Your task to perform on an android device: toggle notifications settings in the gmail app Image 0: 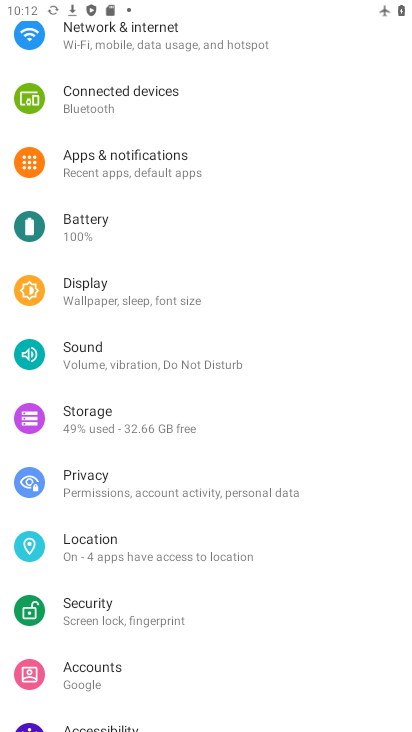
Step 0: press home button
Your task to perform on an android device: toggle notifications settings in the gmail app Image 1: 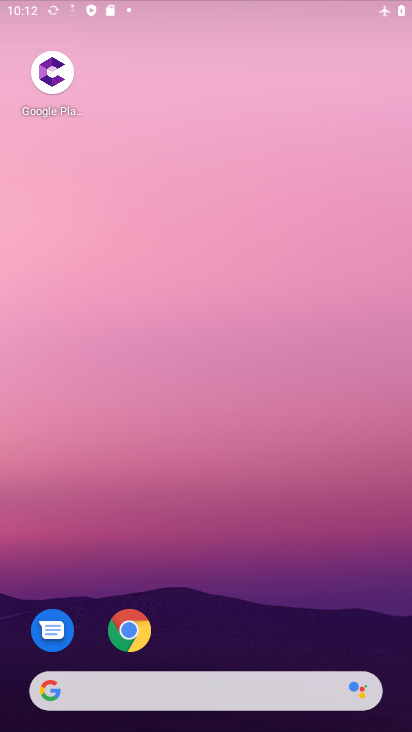
Step 1: drag from (218, 612) to (230, 146)
Your task to perform on an android device: toggle notifications settings in the gmail app Image 2: 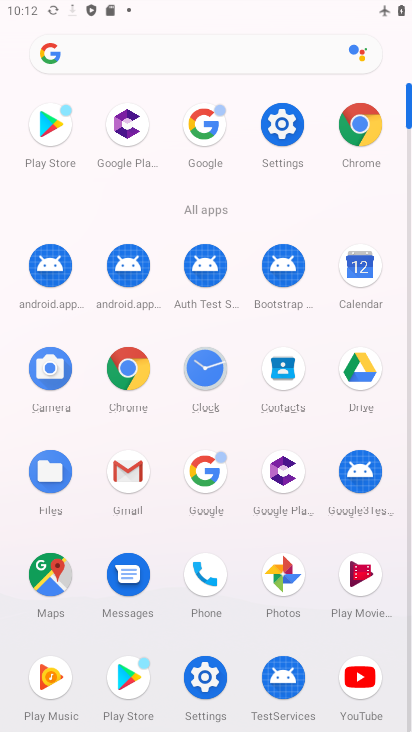
Step 2: click (133, 477)
Your task to perform on an android device: toggle notifications settings in the gmail app Image 3: 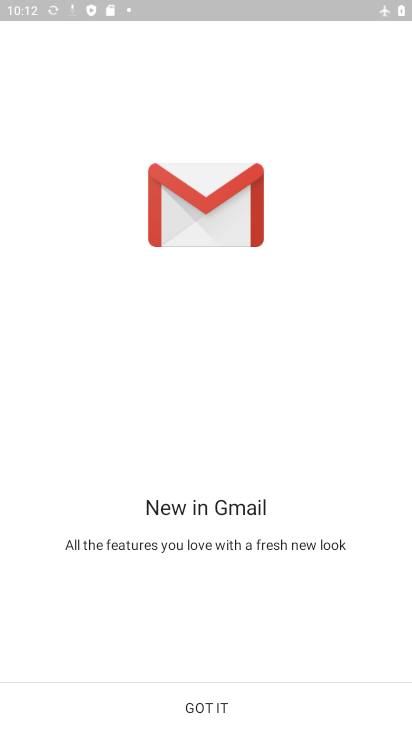
Step 3: click (219, 702)
Your task to perform on an android device: toggle notifications settings in the gmail app Image 4: 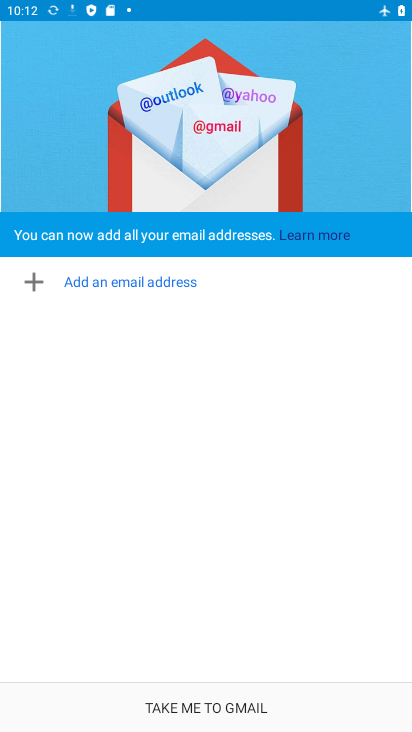
Step 4: click (218, 700)
Your task to perform on an android device: toggle notifications settings in the gmail app Image 5: 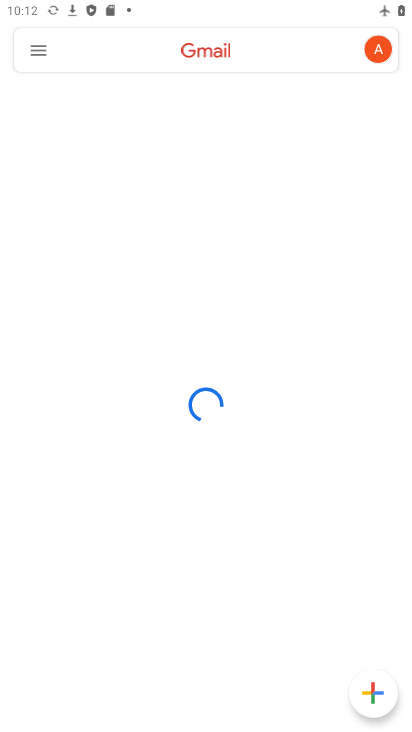
Step 5: click (41, 46)
Your task to perform on an android device: toggle notifications settings in the gmail app Image 6: 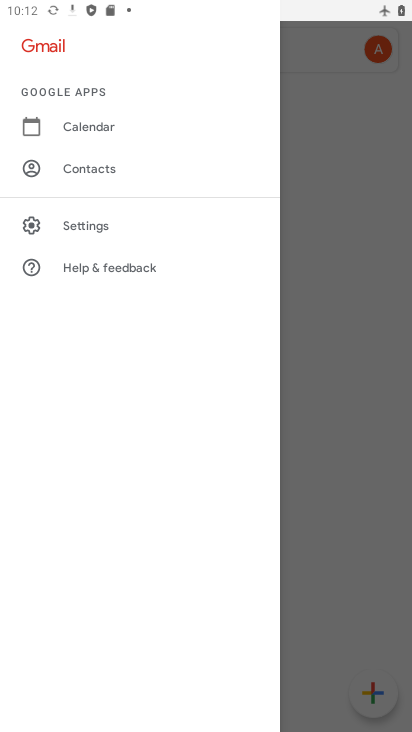
Step 6: click (89, 218)
Your task to perform on an android device: toggle notifications settings in the gmail app Image 7: 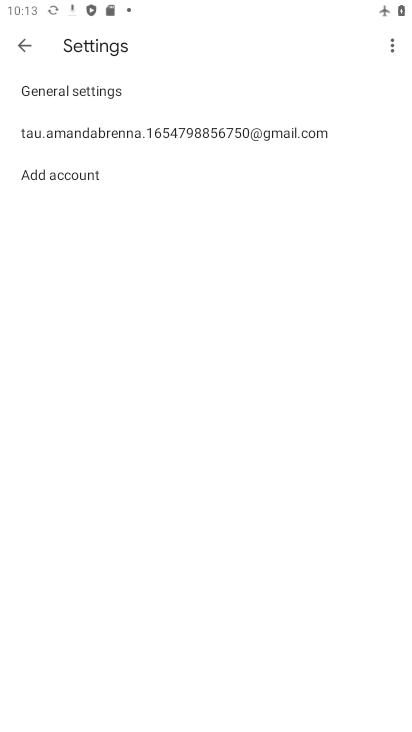
Step 7: click (115, 138)
Your task to perform on an android device: toggle notifications settings in the gmail app Image 8: 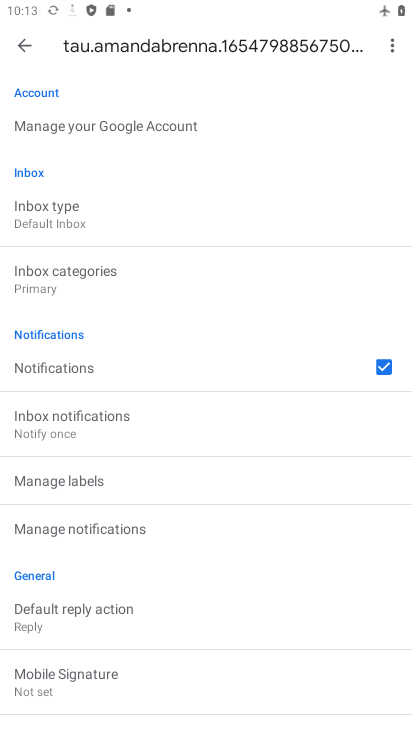
Step 8: click (62, 368)
Your task to perform on an android device: toggle notifications settings in the gmail app Image 9: 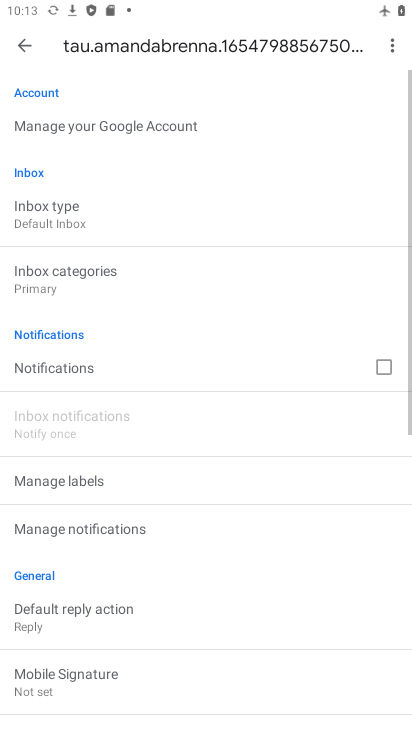
Step 9: task complete